Your task to perform on an android device: check the backup settings in the google photos Image 0: 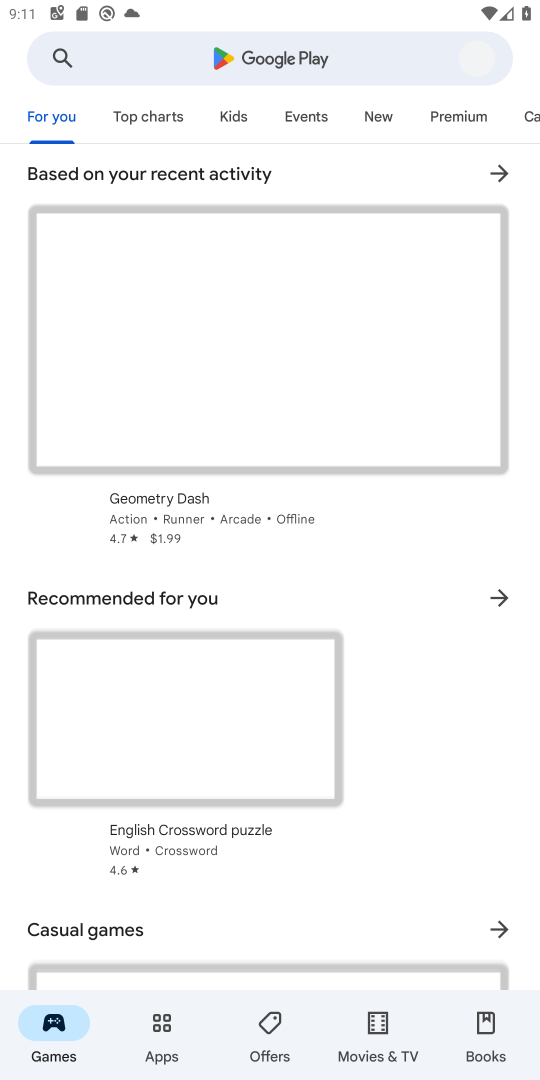
Step 0: press home button
Your task to perform on an android device: check the backup settings in the google photos Image 1: 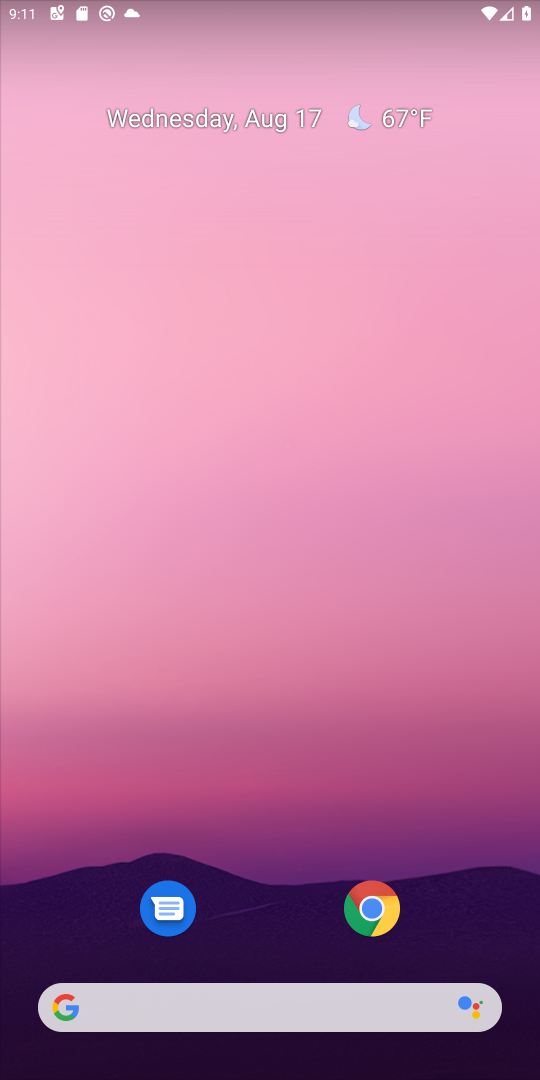
Step 1: drag from (291, 867) to (373, 79)
Your task to perform on an android device: check the backup settings in the google photos Image 2: 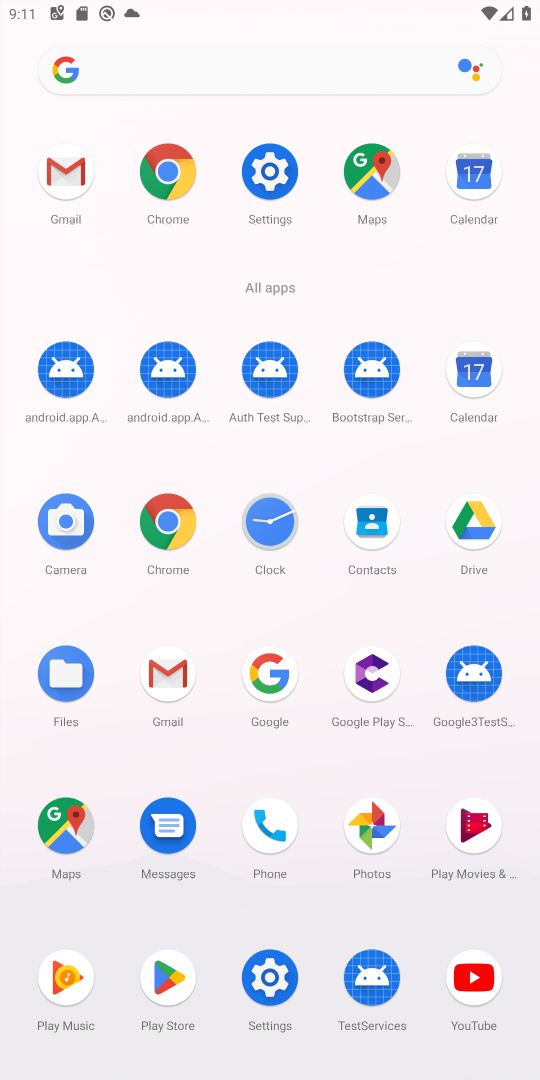
Step 2: click (381, 812)
Your task to perform on an android device: check the backup settings in the google photos Image 3: 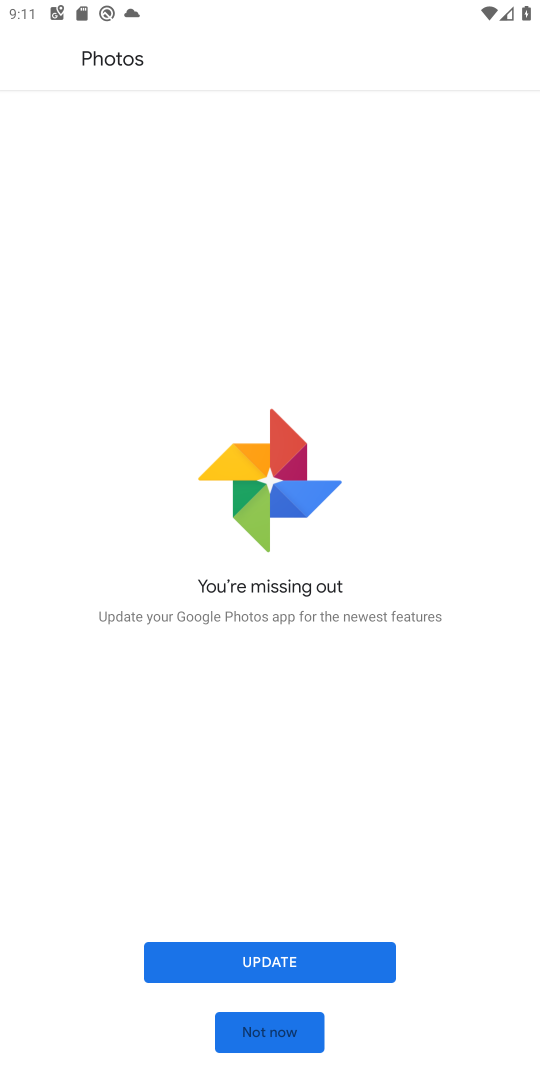
Step 3: click (372, 963)
Your task to perform on an android device: check the backup settings in the google photos Image 4: 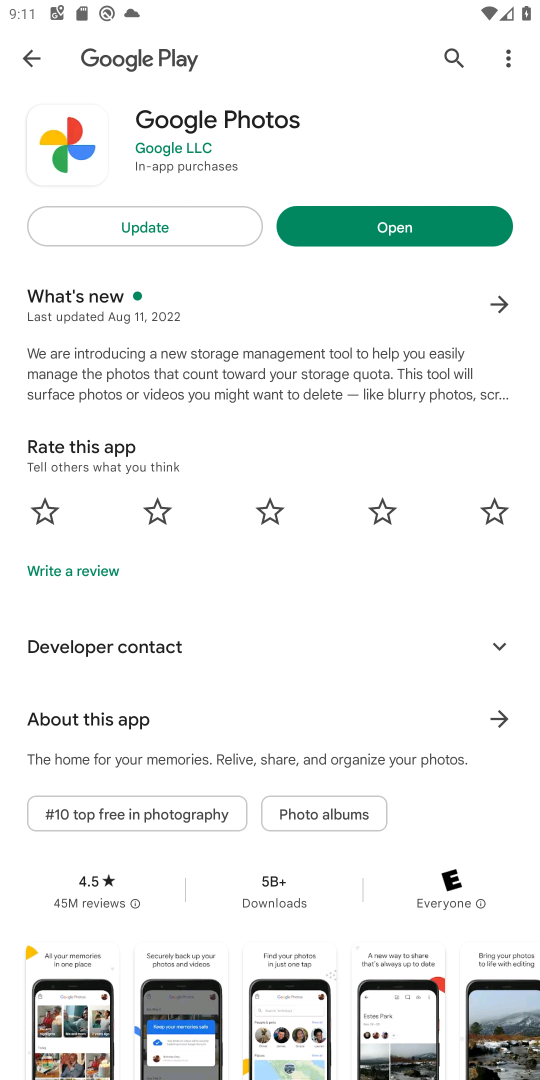
Step 4: click (168, 232)
Your task to perform on an android device: check the backup settings in the google photos Image 5: 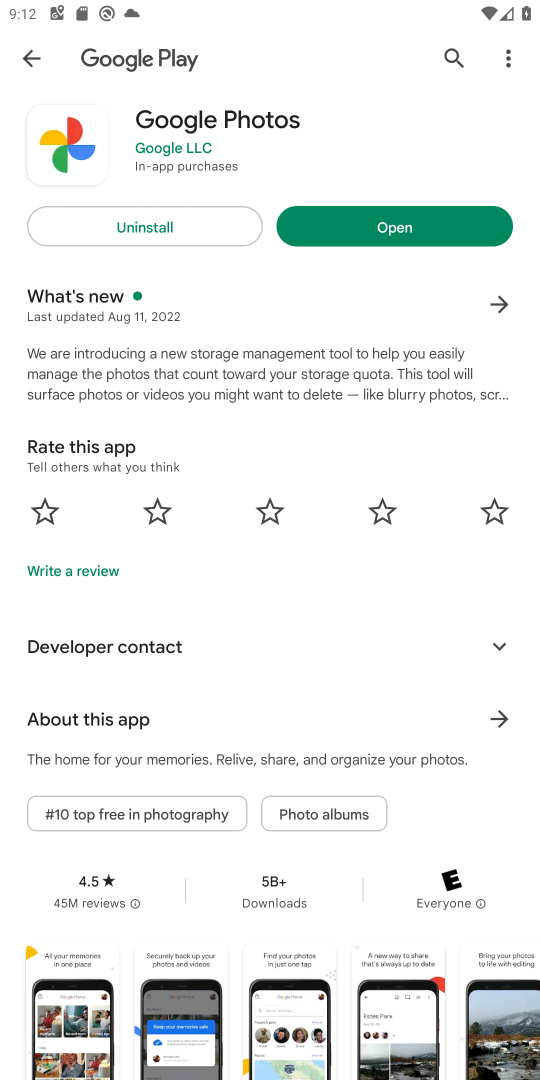
Step 5: click (482, 231)
Your task to perform on an android device: check the backup settings in the google photos Image 6: 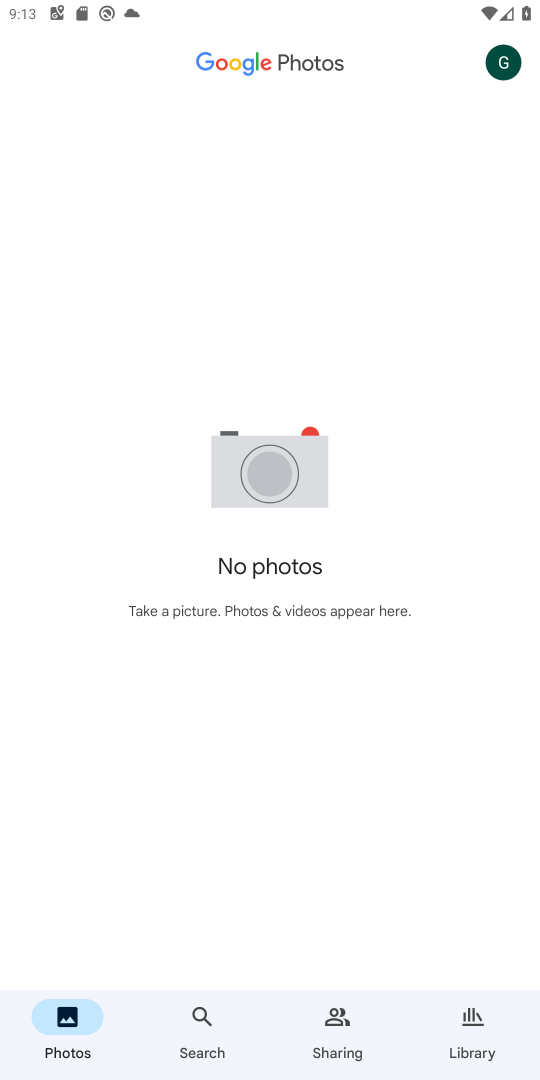
Step 6: task complete